Your task to perform on an android device: allow notifications from all sites in the chrome app Image 0: 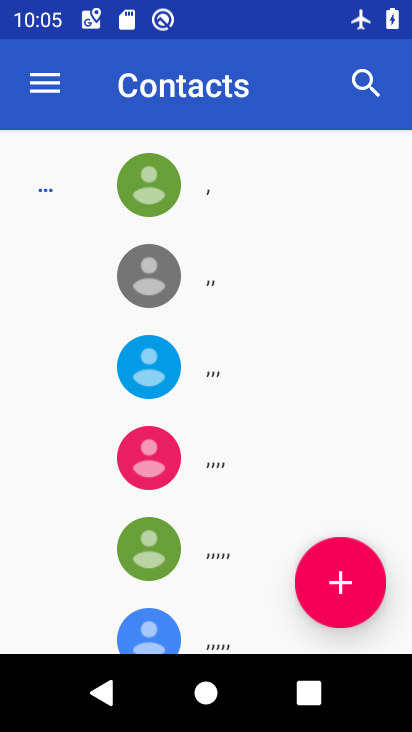
Step 0: press home button
Your task to perform on an android device: allow notifications from all sites in the chrome app Image 1: 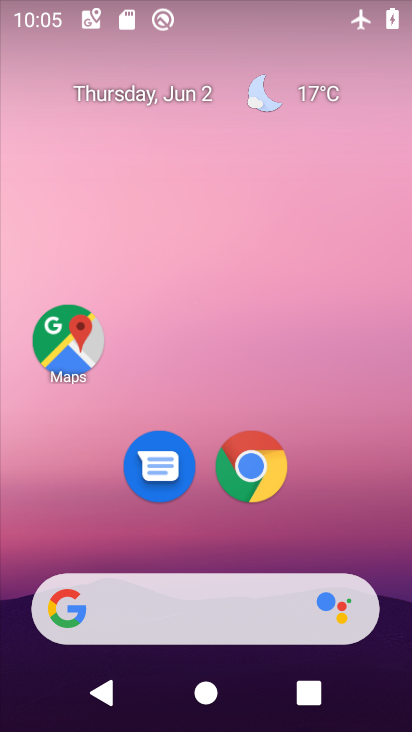
Step 1: click (240, 453)
Your task to perform on an android device: allow notifications from all sites in the chrome app Image 2: 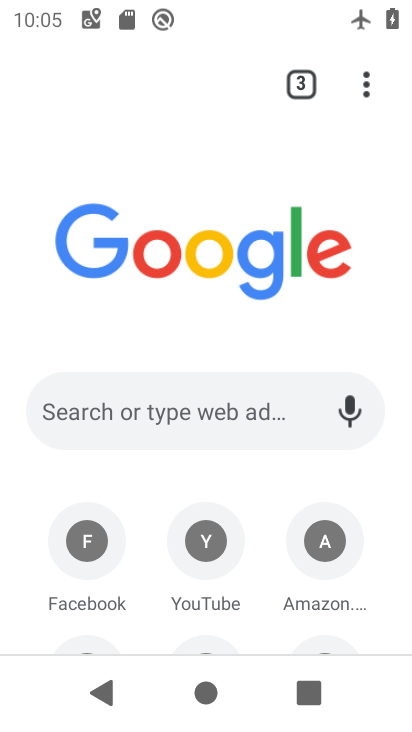
Step 2: click (389, 64)
Your task to perform on an android device: allow notifications from all sites in the chrome app Image 3: 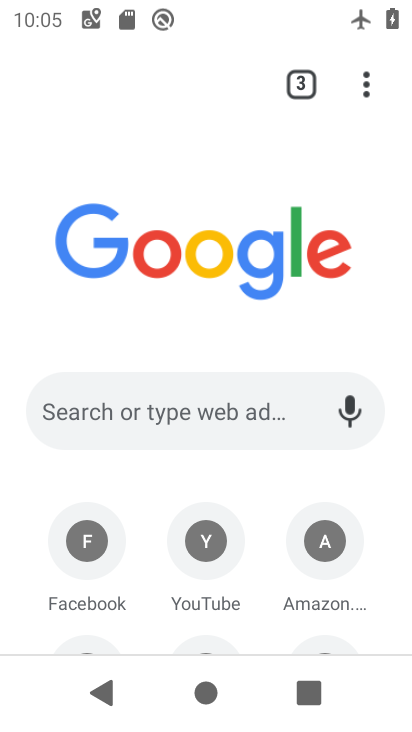
Step 3: click (373, 78)
Your task to perform on an android device: allow notifications from all sites in the chrome app Image 4: 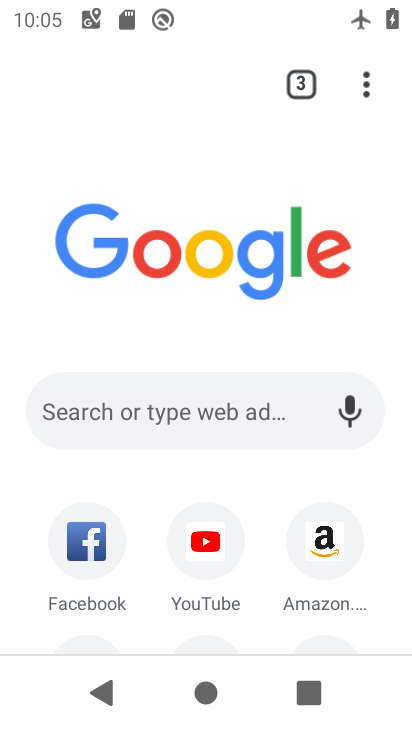
Step 4: click (367, 87)
Your task to perform on an android device: allow notifications from all sites in the chrome app Image 5: 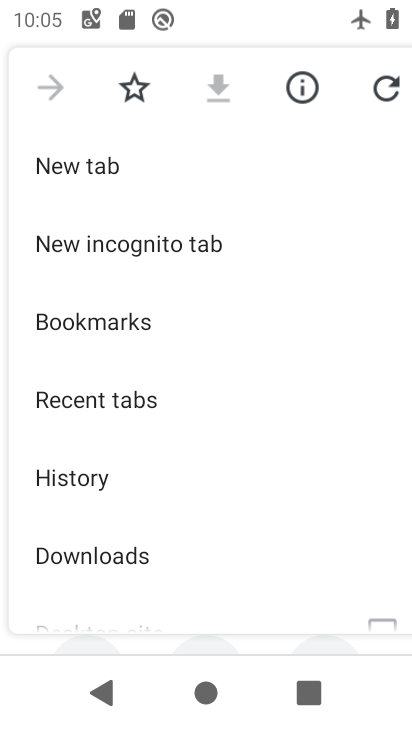
Step 5: drag from (275, 527) to (294, 197)
Your task to perform on an android device: allow notifications from all sites in the chrome app Image 6: 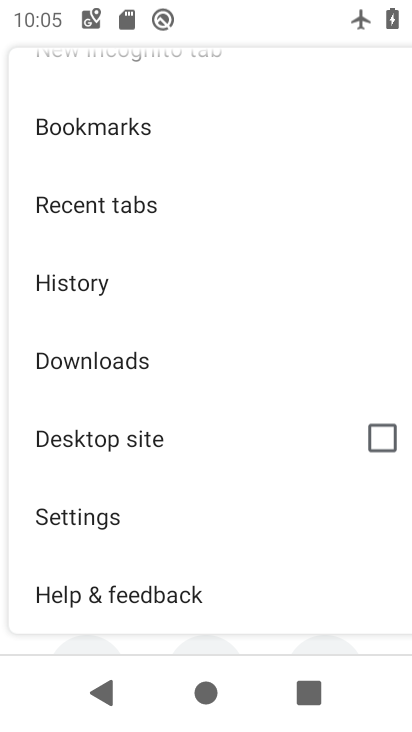
Step 6: click (150, 525)
Your task to perform on an android device: allow notifications from all sites in the chrome app Image 7: 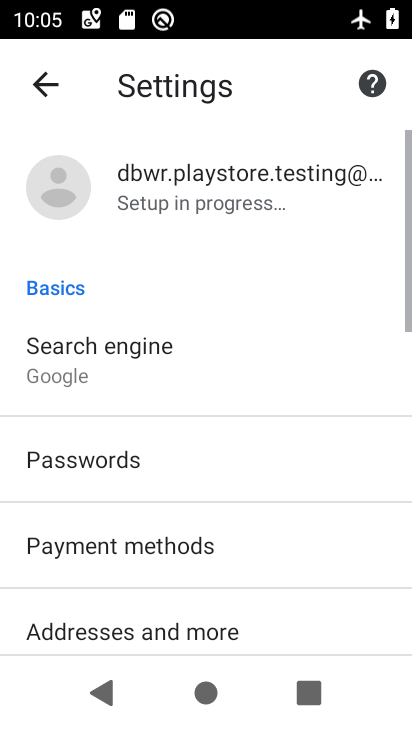
Step 7: drag from (160, 549) to (228, 259)
Your task to perform on an android device: allow notifications from all sites in the chrome app Image 8: 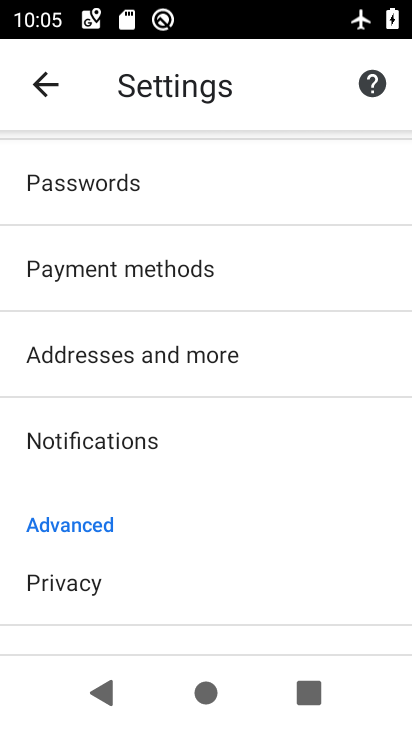
Step 8: drag from (228, 548) to (286, 231)
Your task to perform on an android device: allow notifications from all sites in the chrome app Image 9: 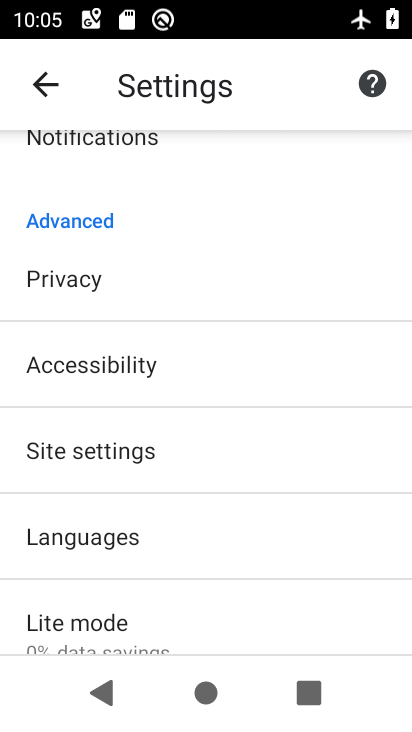
Step 9: click (156, 461)
Your task to perform on an android device: allow notifications from all sites in the chrome app Image 10: 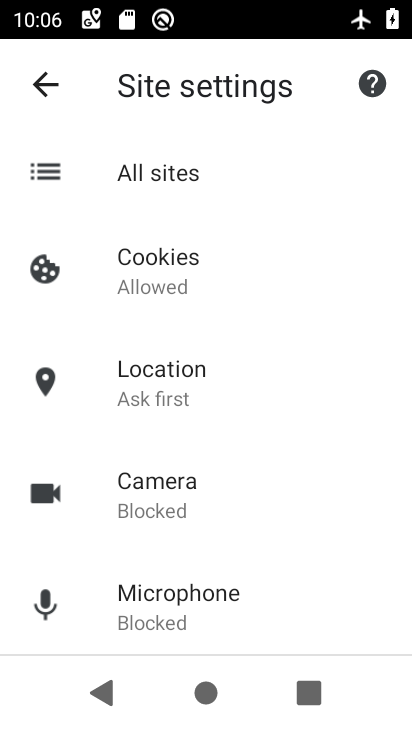
Step 10: task complete